Your task to perform on an android device: read, delete, or share a saved page in the chrome app Image 0: 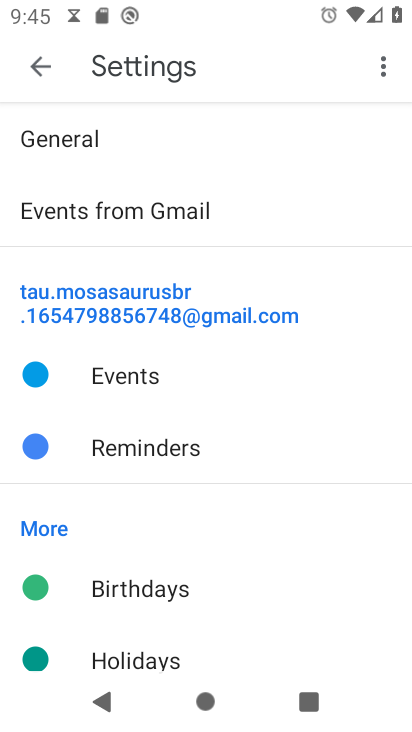
Step 0: press home button
Your task to perform on an android device: read, delete, or share a saved page in the chrome app Image 1: 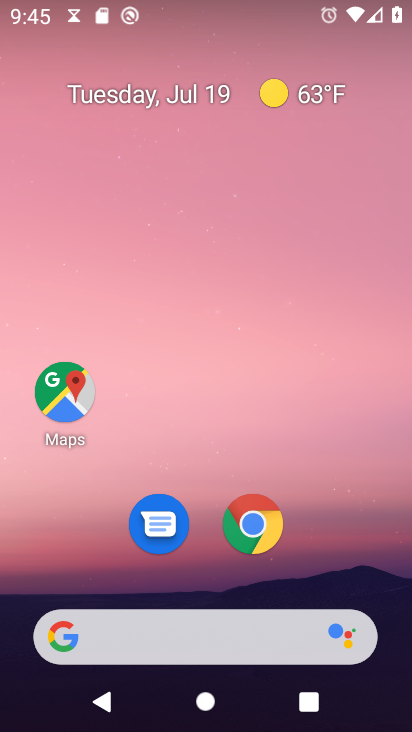
Step 1: click (244, 533)
Your task to perform on an android device: read, delete, or share a saved page in the chrome app Image 2: 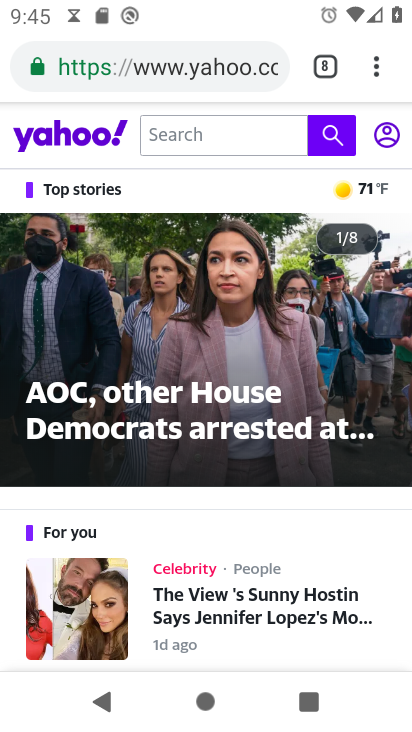
Step 2: drag from (374, 64) to (196, 442)
Your task to perform on an android device: read, delete, or share a saved page in the chrome app Image 3: 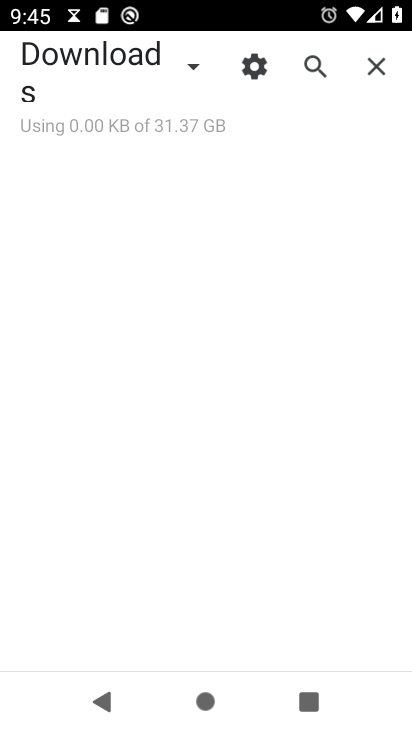
Step 3: click (170, 57)
Your task to perform on an android device: read, delete, or share a saved page in the chrome app Image 4: 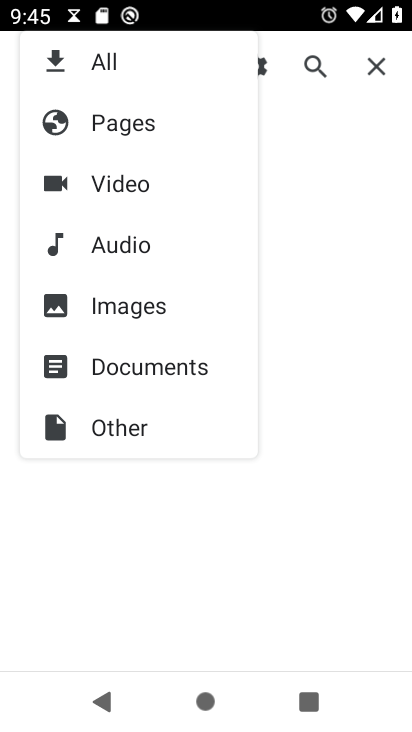
Step 4: click (133, 129)
Your task to perform on an android device: read, delete, or share a saved page in the chrome app Image 5: 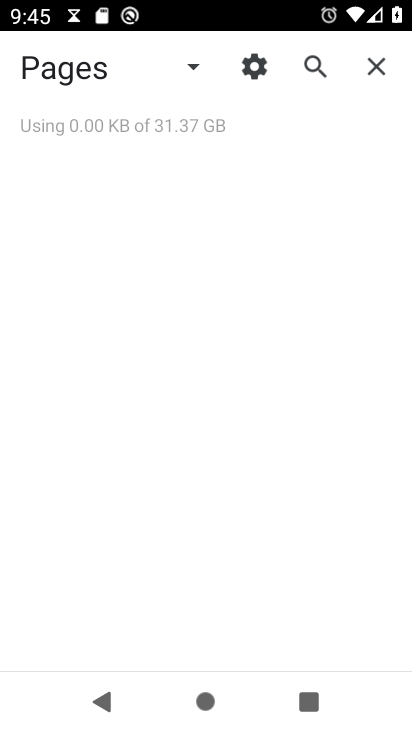
Step 5: task complete